Your task to perform on an android device: Search for sushi restaurants on Maps Image 0: 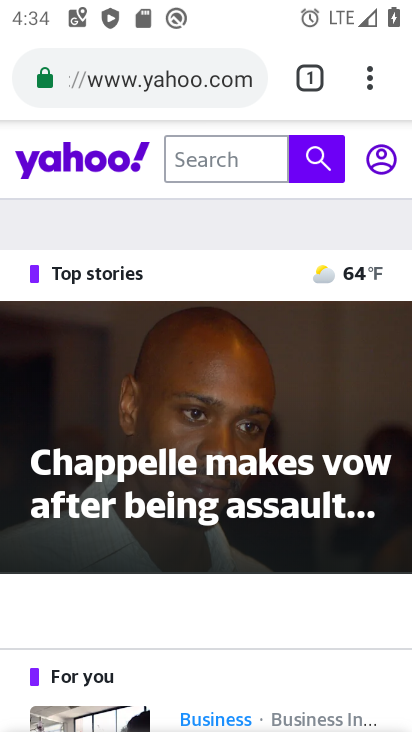
Step 0: press home button
Your task to perform on an android device: Search for sushi restaurants on Maps Image 1: 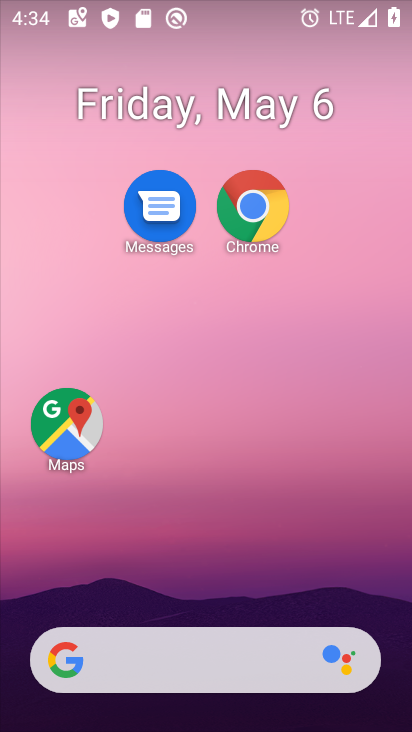
Step 1: drag from (180, 627) to (213, 319)
Your task to perform on an android device: Search for sushi restaurants on Maps Image 2: 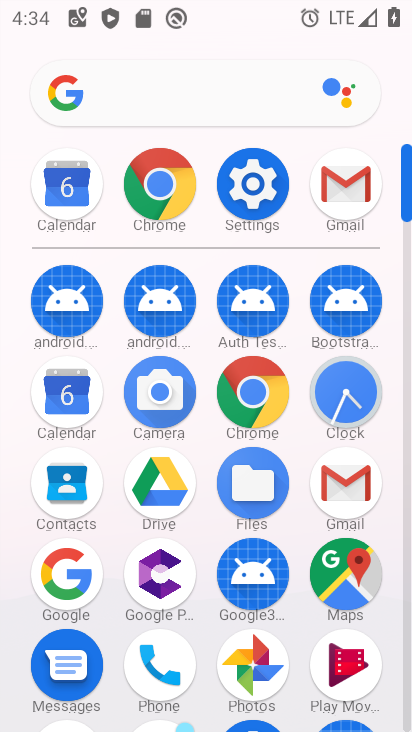
Step 2: click (338, 586)
Your task to perform on an android device: Search for sushi restaurants on Maps Image 3: 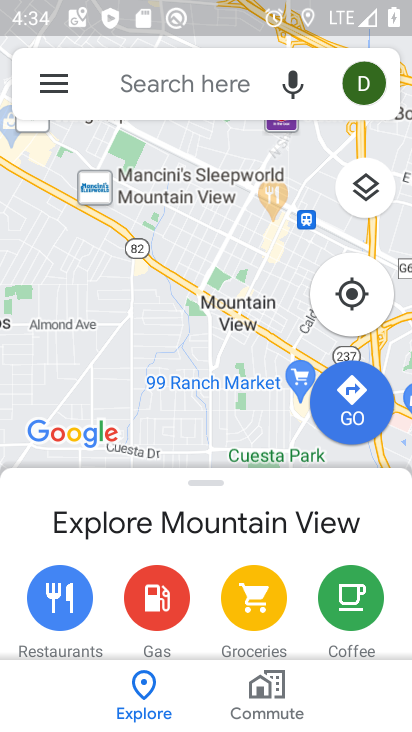
Step 3: click (146, 77)
Your task to perform on an android device: Search for sushi restaurants on Maps Image 4: 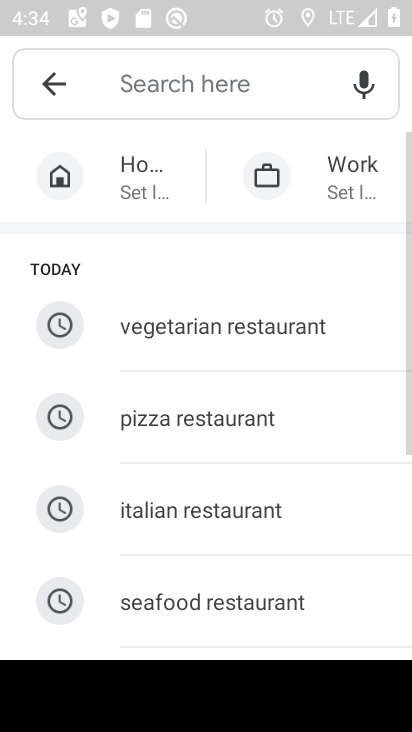
Step 4: drag from (192, 610) to (197, 357)
Your task to perform on an android device: Search for sushi restaurants on Maps Image 5: 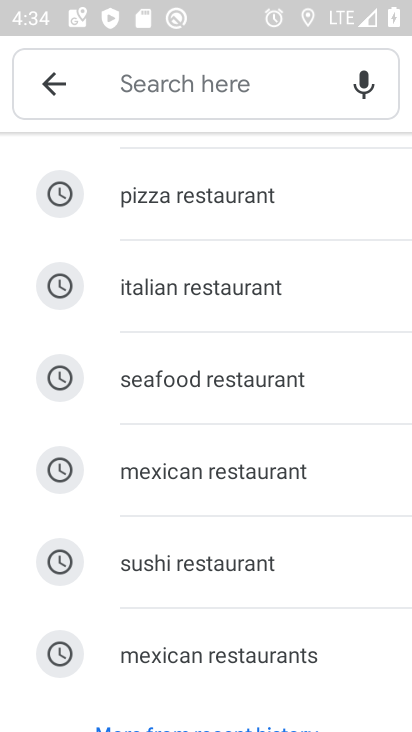
Step 5: click (178, 573)
Your task to perform on an android device: Search for sushi restaurants on Maps Image 6: 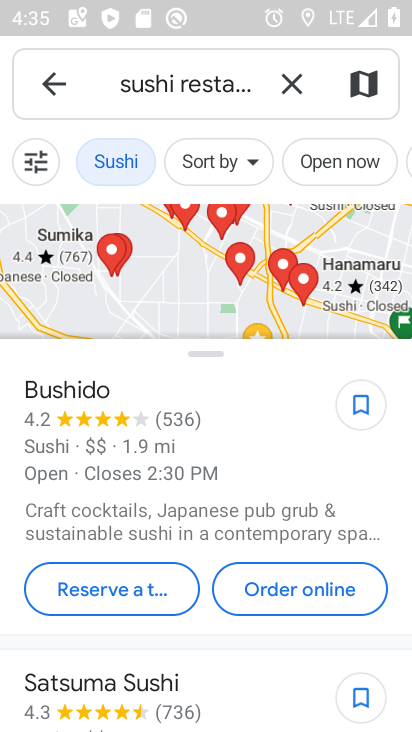
Step 6: task complete